Your task to perform on an android device: Open Chrome and go to settings Image 0: 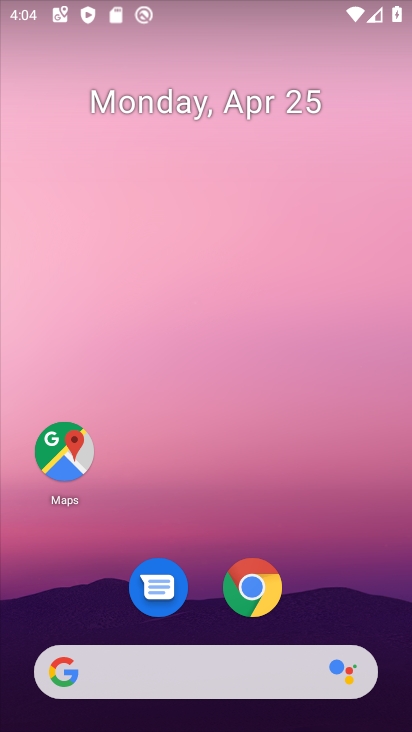
Step 0: click (249, 595)
Your task to perform on an android device: Open Chrome and go to settings Image 1: 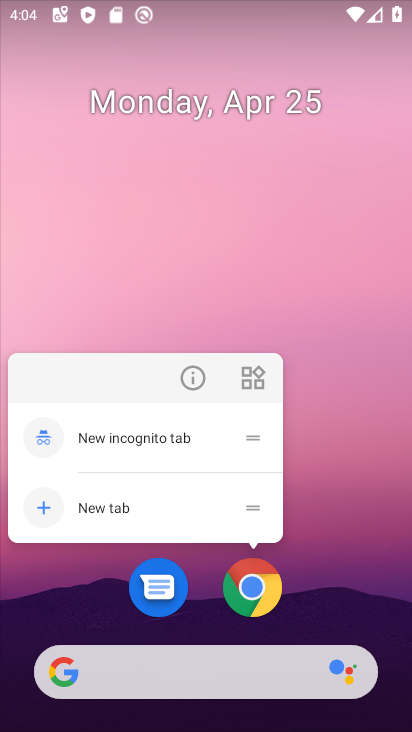
Step 1: click (257, 588)
Your task to perform on an android device: Open Chrome and go to settings Image 2: 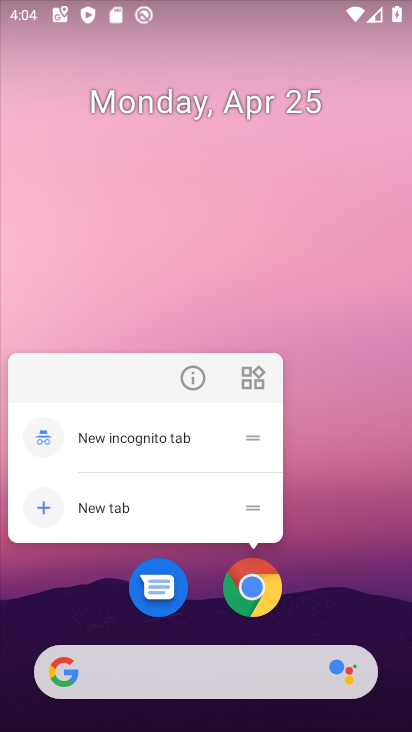
Step 2: click (257, 588)
Your task to perform on an android device: Open Chrome and go to settings Image 3: 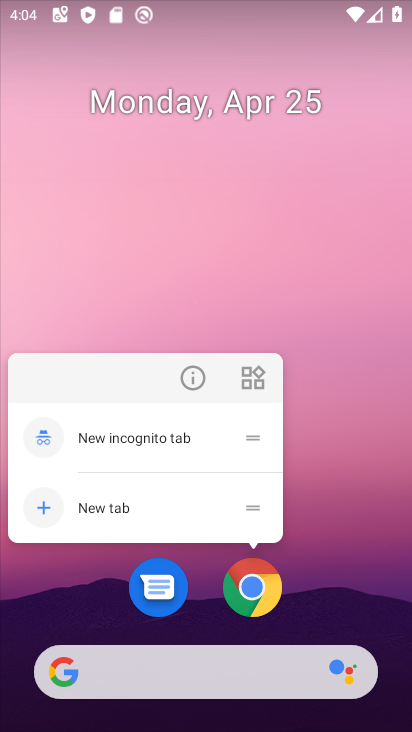
Step 3: click (258, 586)
Your task to perform on an android device: Open Chrome and go to settings Image 4: 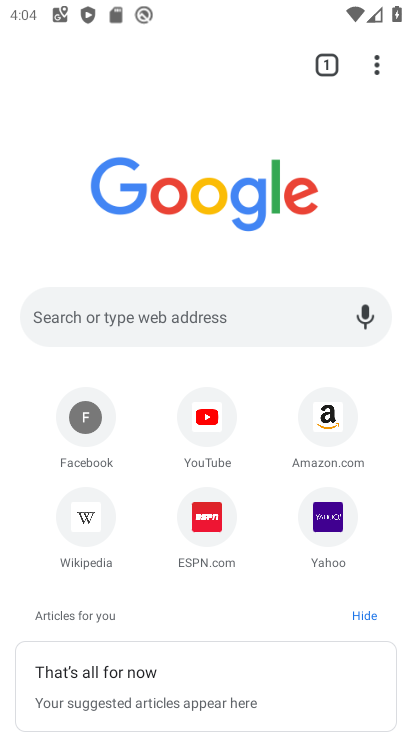
Step 4: task complete